Your task to perform on an android device: check data usage Image 0: 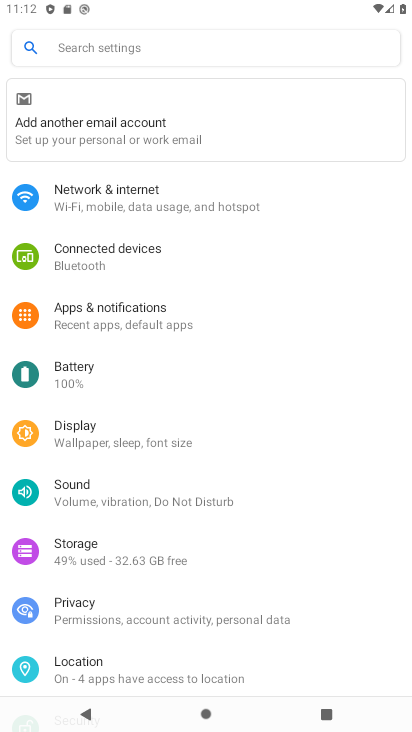
Step 0: click (223, 198)
Your task to perform on an android device: check data usage Image 1: 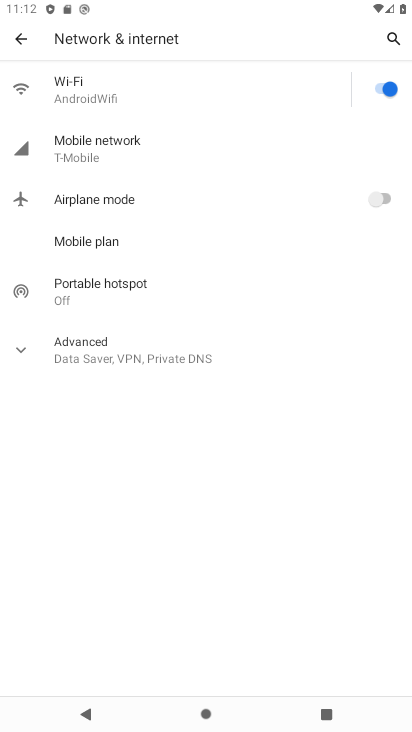
Step 1: click (212, 142)
Your task to perform on an android device: check data usage Image 2: 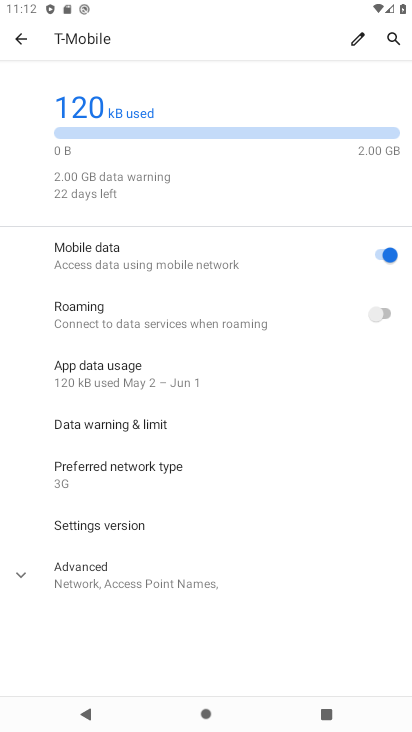
Step 2: task complete